Your task to perform on an android device: Open network settings Image 0: 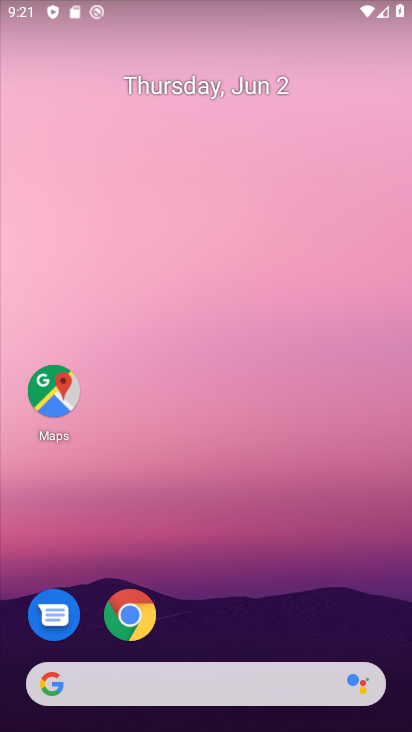
Step 0: drag from (234, 624) to (251, 255)
Your task to perform on an android device: Open network settings Image 1: 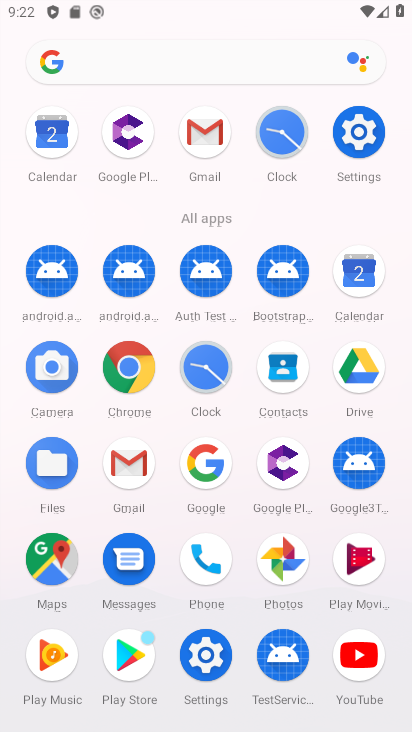
Step 1: click (359, 134)
Your task to perform on an android device: Open network settings Image 2: 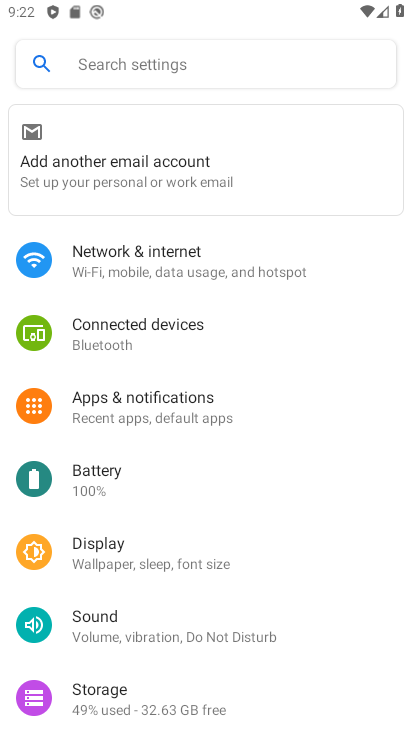
Step 2: click (121, 270)
Your task to perform on an android device: Open network settings Image 3: 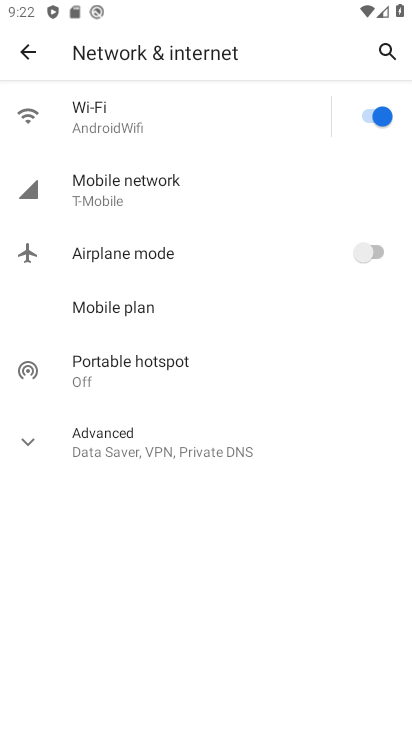
Step 3: task complete